Your task to perform on an android device: Go to location settings Image 0: 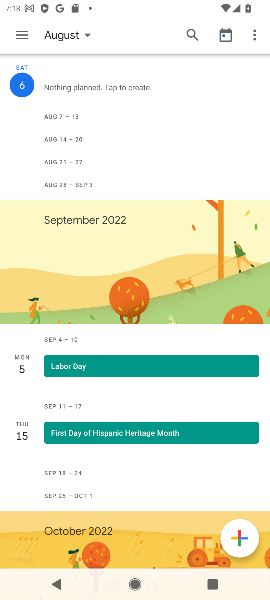
Step 0: press home button
Your task to perform on an android device: Go to location settings Image 1: 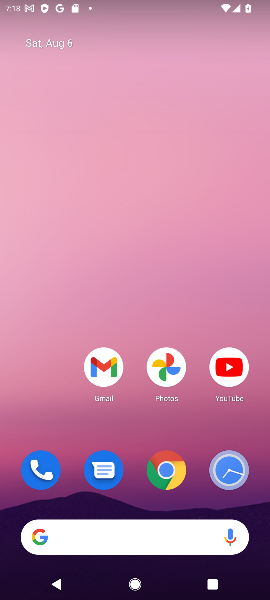
Step 1: drag from (155, 483) to (269, 103)
Your task to perform on an android device: Go to location settings Image 2: 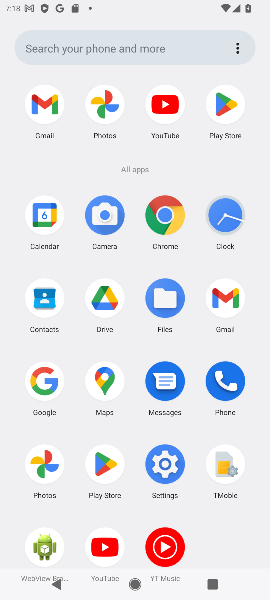
Step 2: click (176, 466)
Your task to perform on an android device: Go to location settings Image 3: 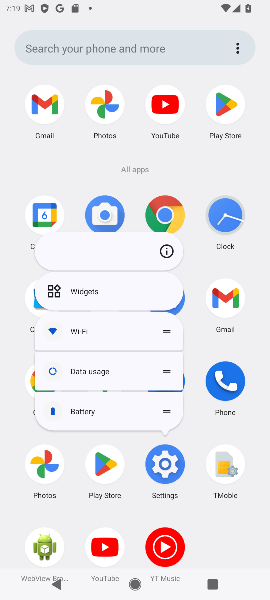
Step 3: click (158, 476)
Your task to perform on an android device: Go to location settings Image 4: 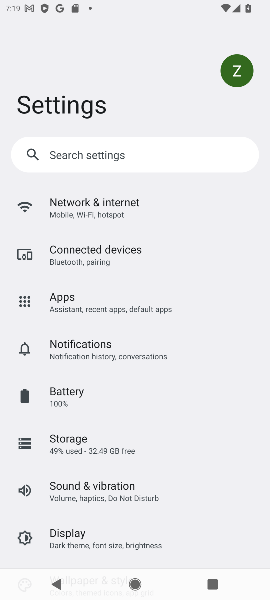
Step 4: drag from (138, 476) to (174, 170)
Your task to perform on an android device: Go to location settings Image 5: 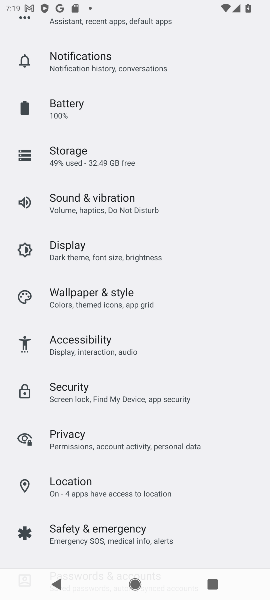
Step 5: click (106, 490)
Your task to perform on an android device: Go to location settings Image 6: 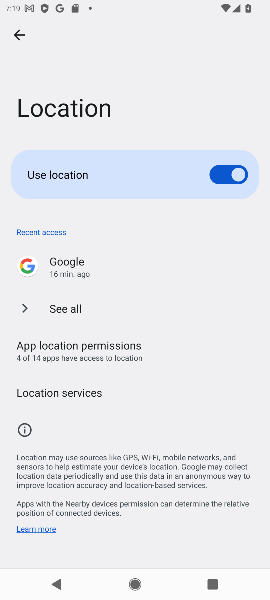
Step 6: task complete